Your task to perform on an android device: What's the latest news in cosmology? Image 0: 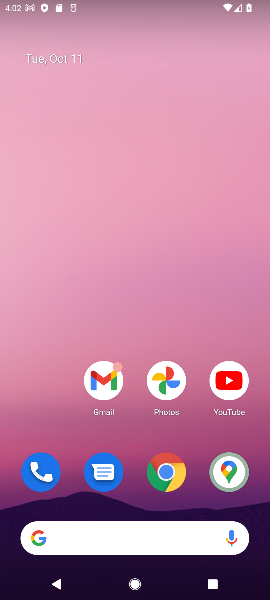
Step 0: click (145, 532)
Your task to perform on an android device: What's the latest news in cosmology? Image 1: 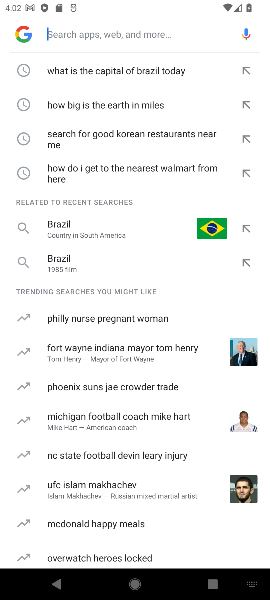
Step 1: type "What's the latest news in cosmology?"
Your task to perform on an android device: What's the latest news in cosmology? Image 2: 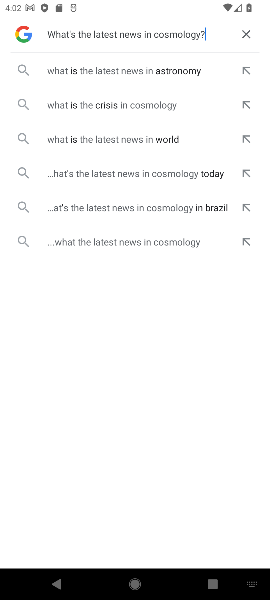
Step 2: click (146, 103)
Your task to perform on an android device: What's the latest news in cosmology? Image 3: 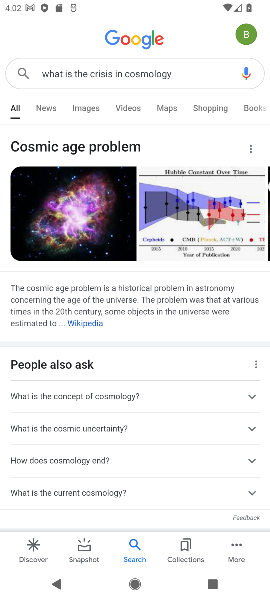
Step 3: click (188, 68)
Your task to perform on an android device: What's the latest news in cosmology? Image 4: 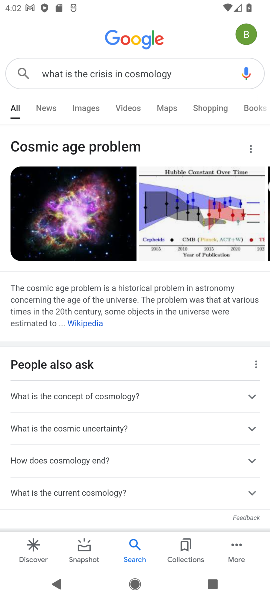
Step 4: click (188, 68)
Your task to perform on an android device: What's the latest news in cosmology? Image 5: 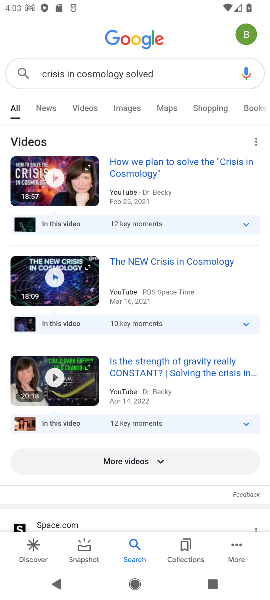
Step 5: click (165, 69)
Your task to perform on an android device: What's the latest news in cosmology? Image 6: 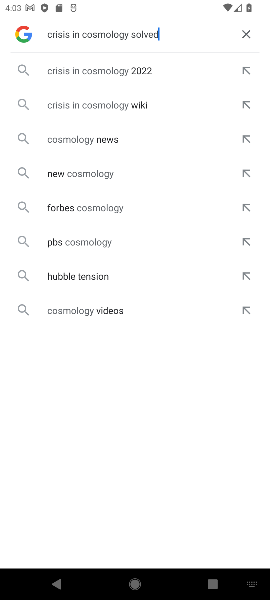
Step 6: click (250, 35)
Your task to perform on an android device: What's the latest news in cosmology? Image 7: 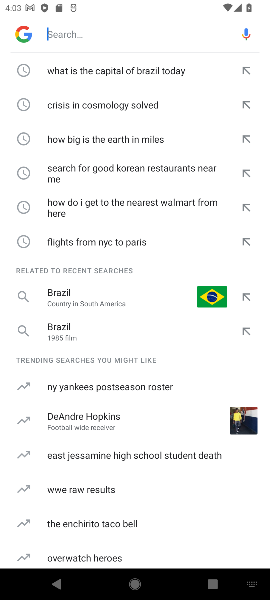
Step 7: type "What's the latest news in cosmology?"
Your task to perform on an android device: What's the latest news in cosmology? Image 8: 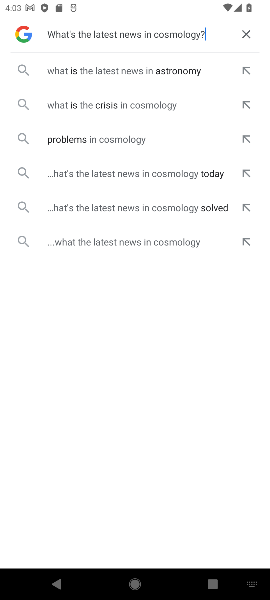
Step 8: click (163, 244)
Your task to perform on an android device: What's the latest news in cosmology? Image 9: 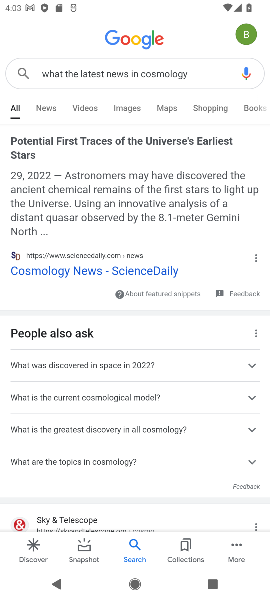
Step 9: task complete